Your task to perform on an android device: move a message to another label in the gmail app Image 0: 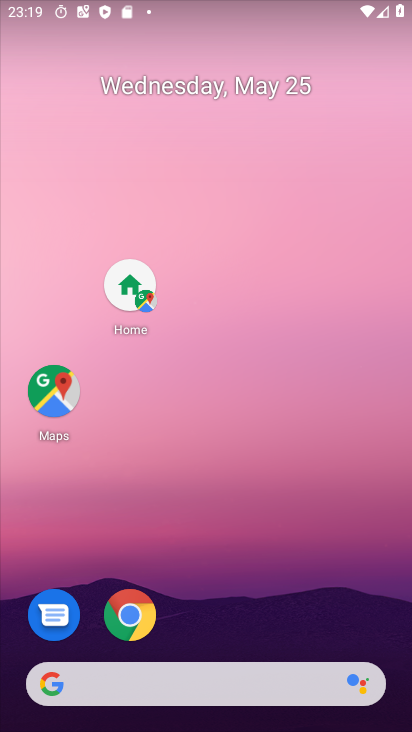
Step 0: press home button
Your task to perform on an android device: move a message to another label in the gmail app Image 1: 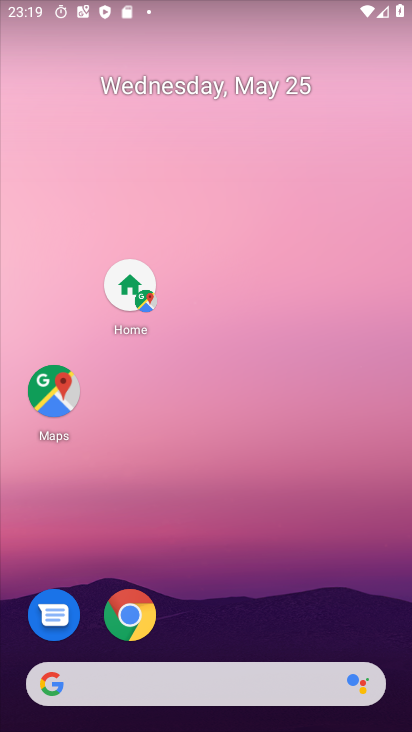
Step 1: drag from (253, 622) to (367, 115)
Your task to perform on an android device: move a message to another label in the gmail app Image 2: 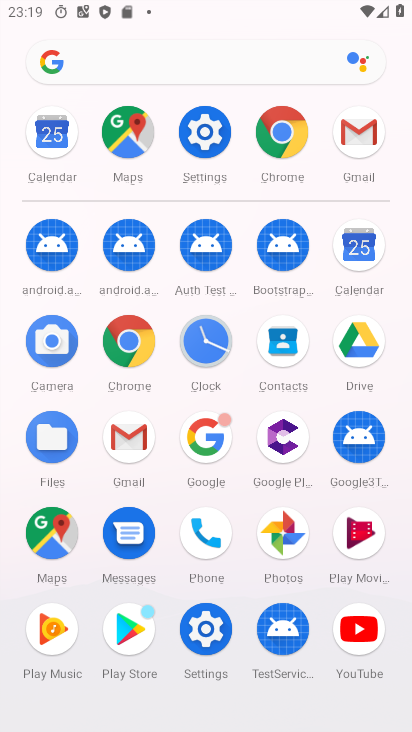
Step 2: click (355, 143)
Your task to perform on an android device: move a message to another label in the gmail app Image 3: 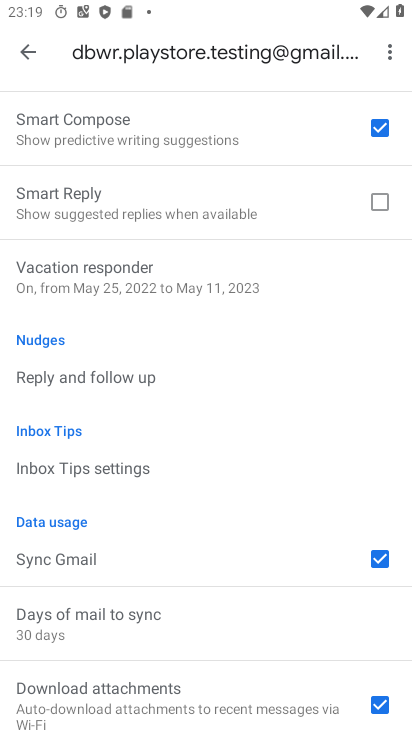
Step 3: click (25, 53)
Your task to perform on an android device: move a message to another label in the gmail app Image 4: 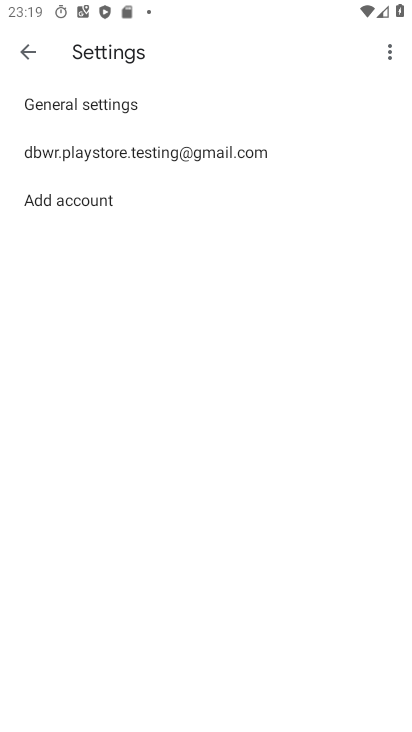
Step 4: click (24, 54)
Your task to perform on an android device: move a message to another label in the gmail app Image 5: 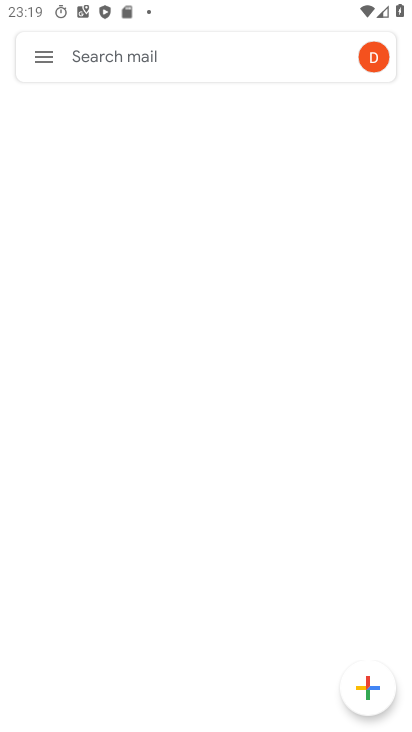
Step 5: click (39, 58)
Your task to perform on an android device: move a message to another label in the gmail app Image 6: 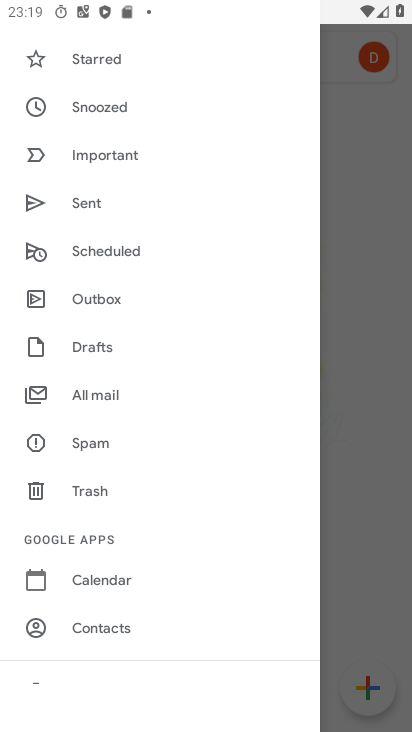
Step 6: click (95, 394)
Your task to perform on an android device: move a message to another label in the gmail app Image 7: 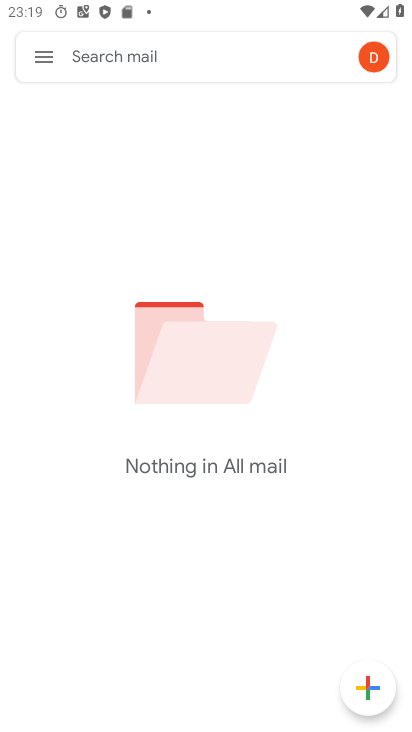
Step 7: task complete